Your task to perform on an android device: Open maps Image 0: 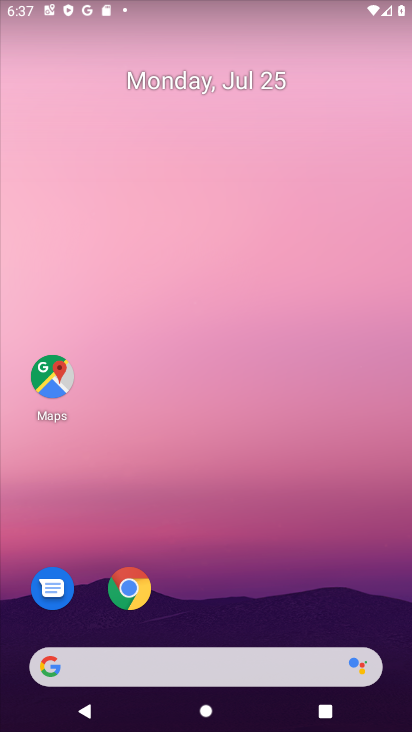
Step 0: click (55, 373)
Your task to perform on an android device: Open maps Image 1: 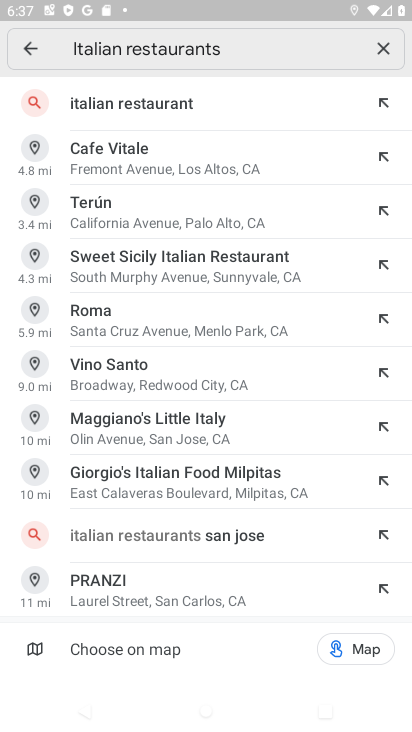
Step 1: task complete